Your task to perform on an android device: How much does a 3 bedroom apartment rent for in Houston? Image 0: 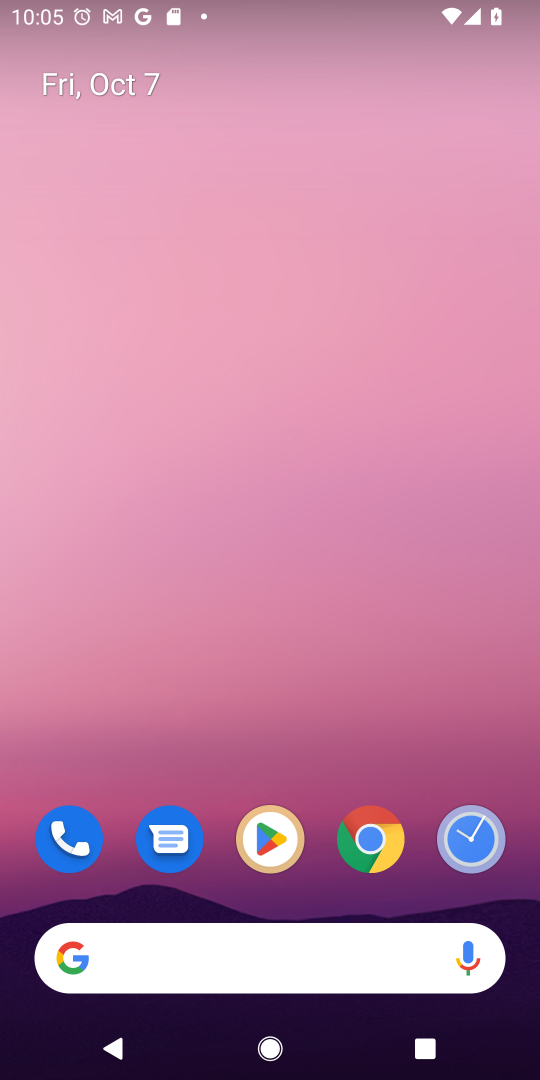
Step 0: click (376, 833)
Your task to perform on an android device: How much does a 3 bedroom apartment rent for in Houston? Image 1: 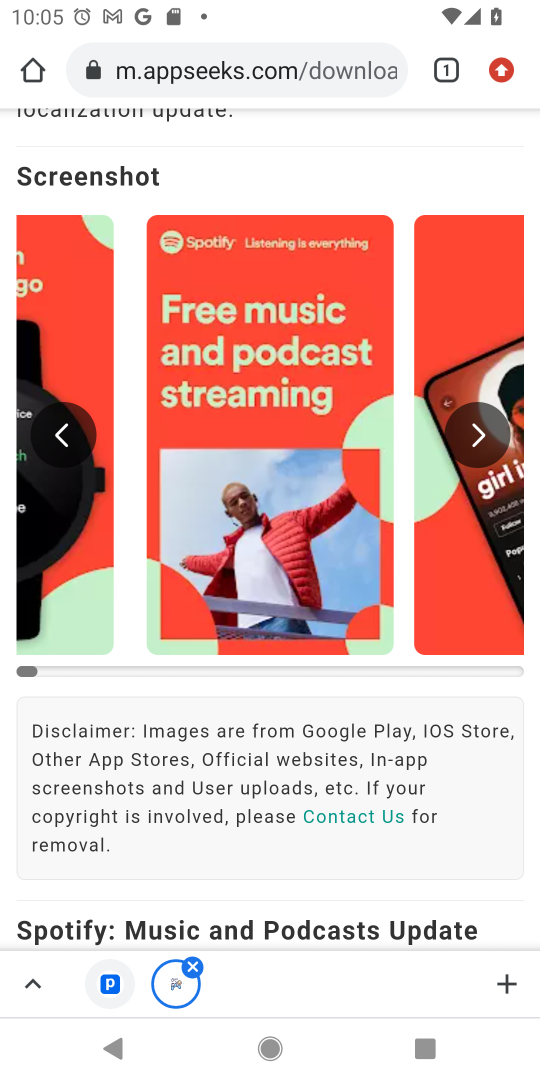
Step 1: click (277, 59)
Your task to perform on an android device: How much does a 3 bedroom apartment rent for in Houston? Image 2: 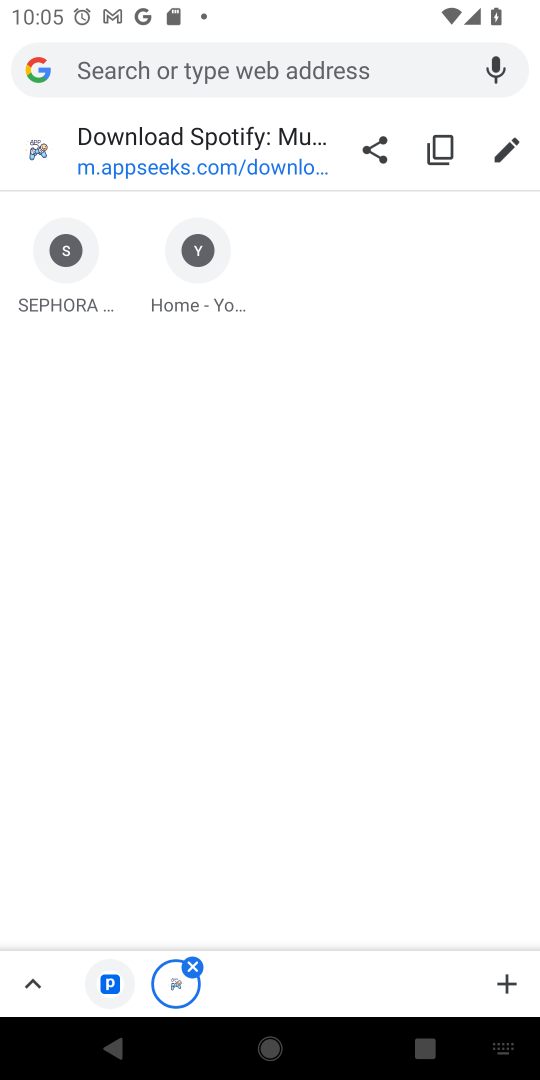
Step 2: type "3 bedroom apartment rent in houston"
Your task to perform on an android device: How much does a 3 bedroom apartment rent for in Houston? Image 3: 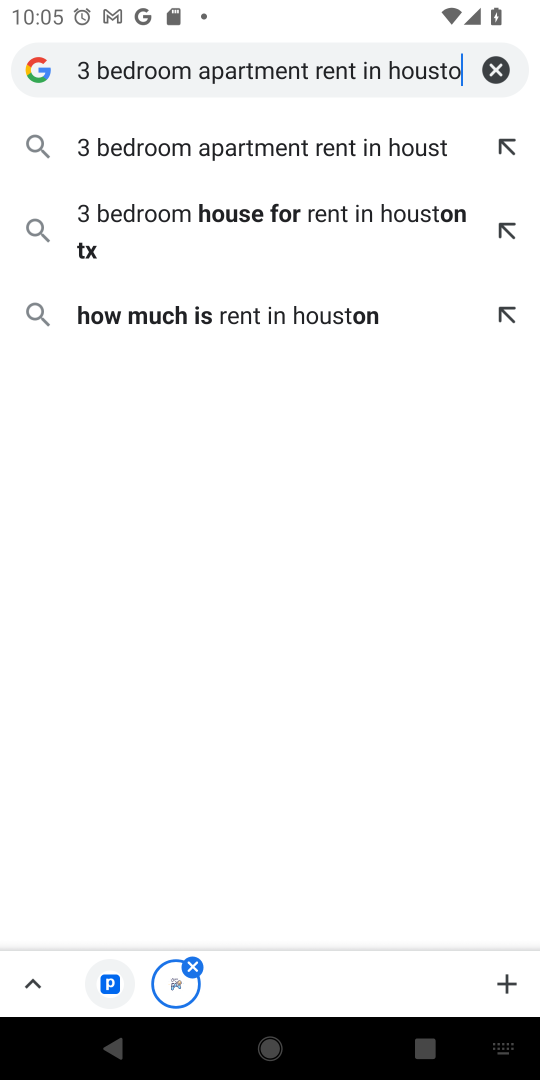
Step 3: type ""
Your task to perform on an android device: How much does a 3 bedroom apartment rent for in Houston? Image 4: 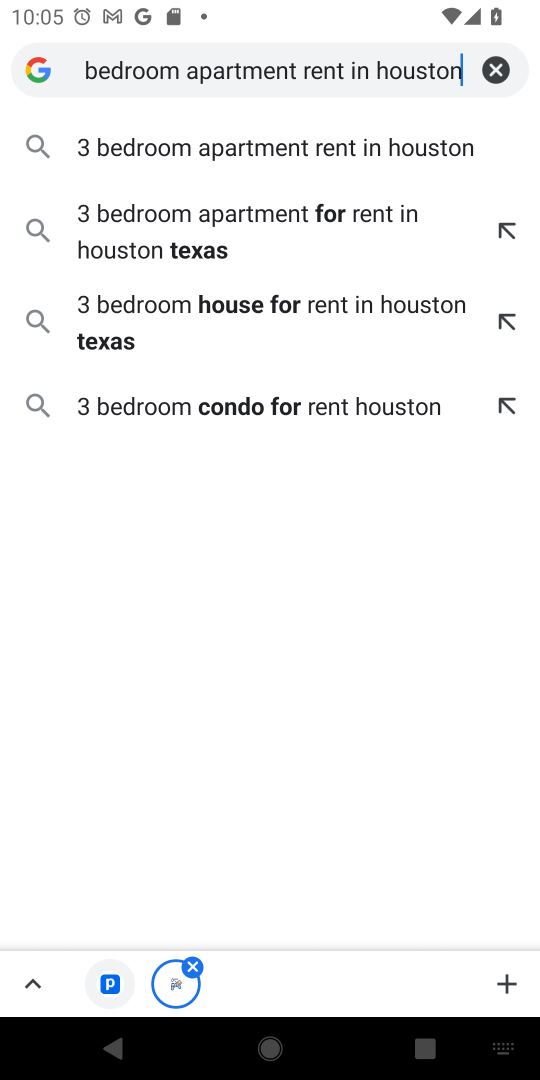
Step 4: click (231, 150)
Your task to perform on an android device: How much does a 3 bedroom apartment rent for in Houston? Image 5: 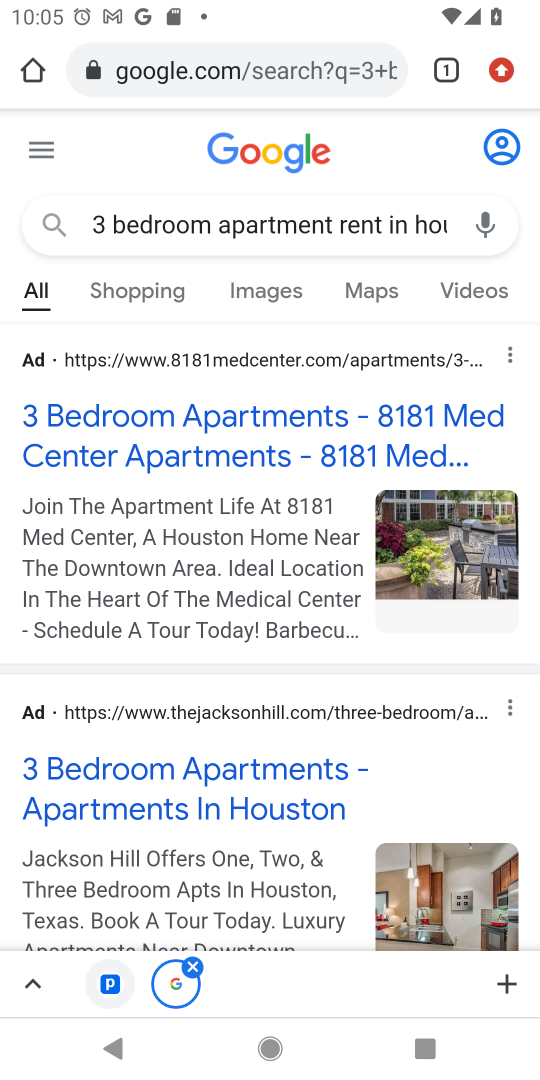
Step 5: click (78, 767)
Your task to perform on an android device: How much does a 3 bedroom apartment rent for in Houston? Image 6: 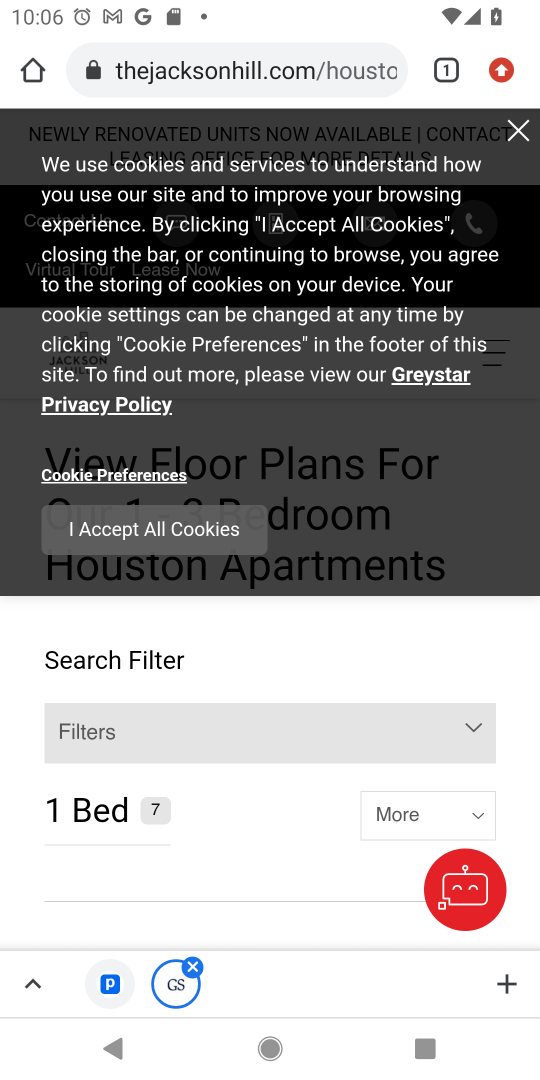
Step 6: click (522, 135)
Your task to perform on an android device: How much does a 3 bedroom apartment rent for in Houston? Image 7: 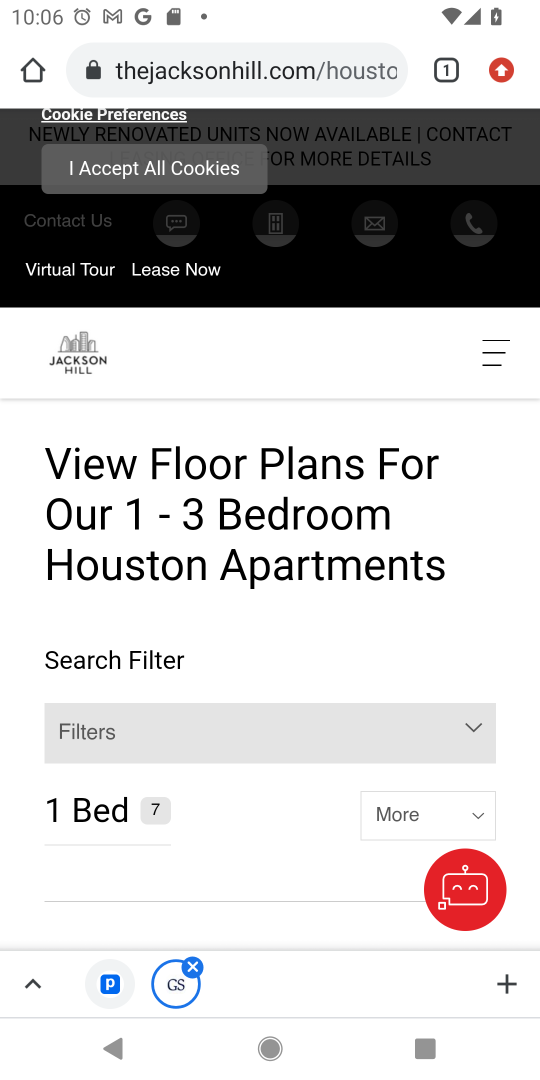
Step 7: task complete